Your task to perform on an android device: Open the phone app and click the voicemail tab. Image 0: 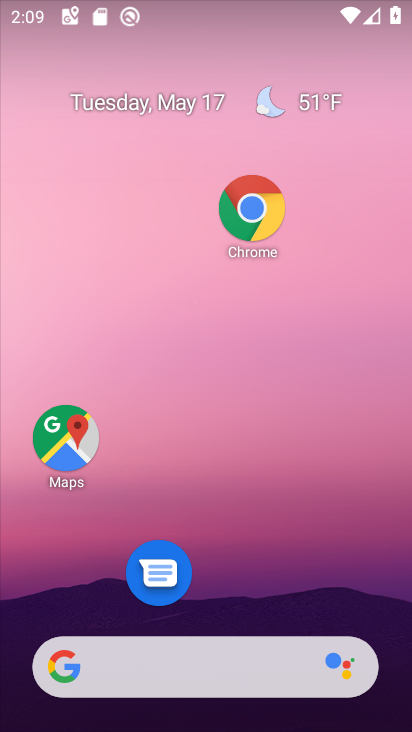
Step 0: drag from (209, 609) to (188, 168)
Your task to perform on an android device: Open the phone app and click the voicemail tab. Image 1: 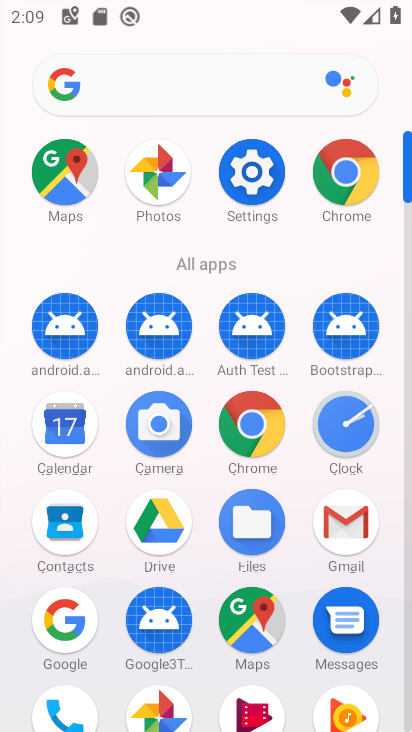
Step 1: click (76, 708)
Your task to perform on an android device: Open the phone app and click the voicemail tab. Image 2: 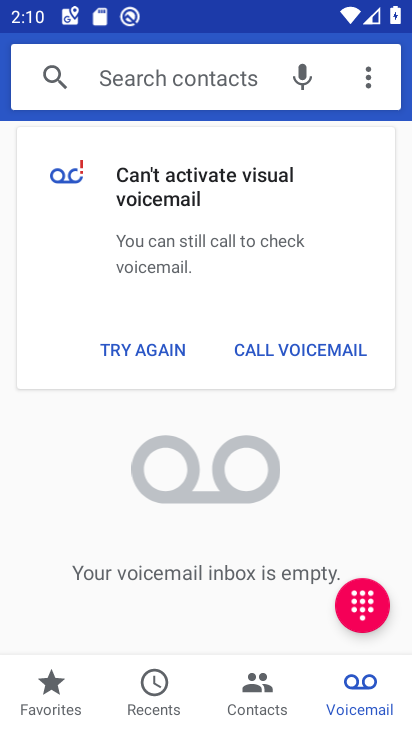
Step 2: click (360, 690)
Your task to perform on an android device: Open the phone app and click the voicemail tab. Image 3: 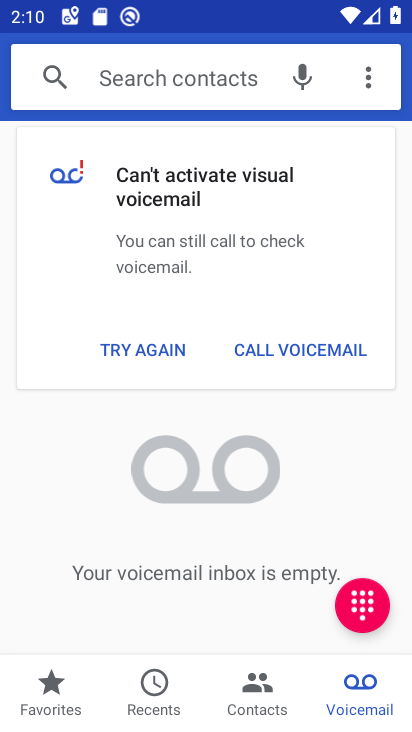
Step 3: task complete